Your task to perform on an android device: Clear the cart on ebay. Search for logitech g pro on ebay, select the first entry, and add it to the cart. Image 0: 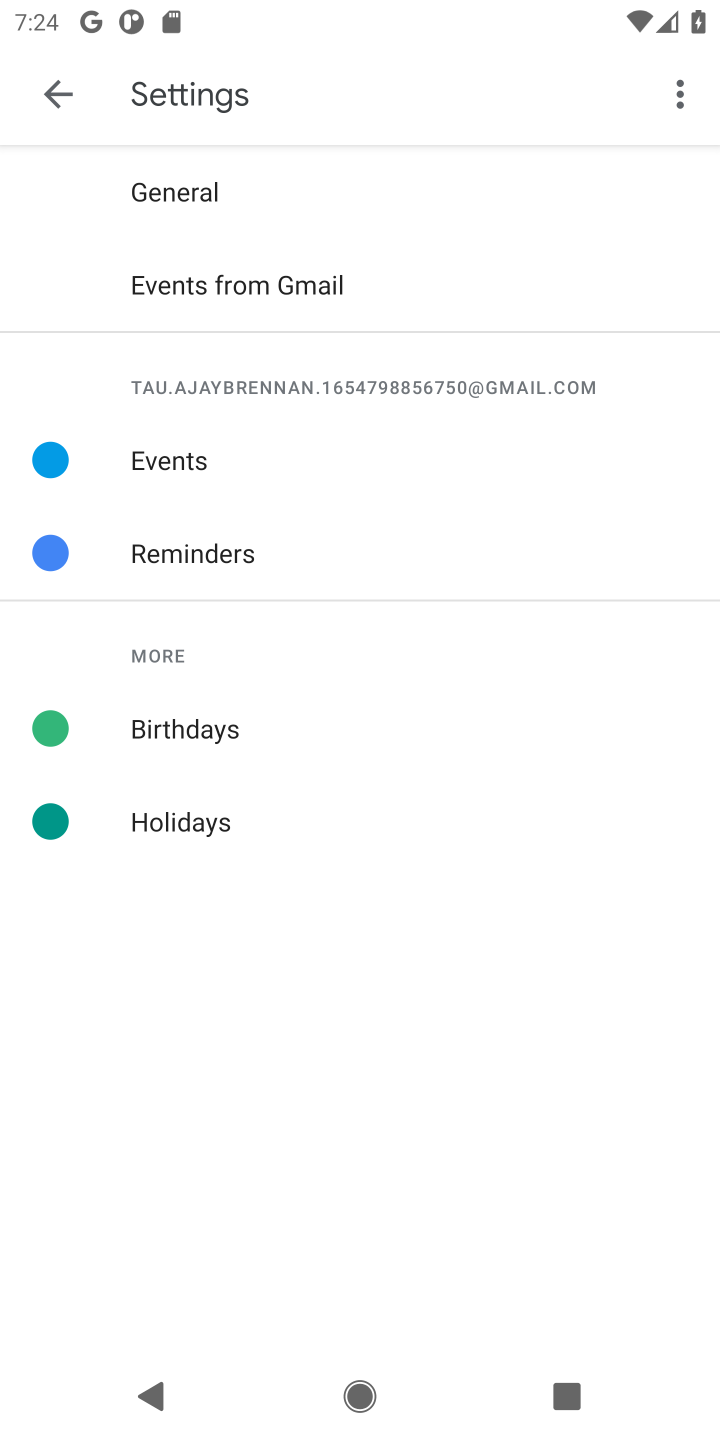
Step 0: press home button
Your task to perform on an android device: Clear the cart on ebay. Search for logitech g pro on ebay, select the first entry, and add it to the cart. Image 1: 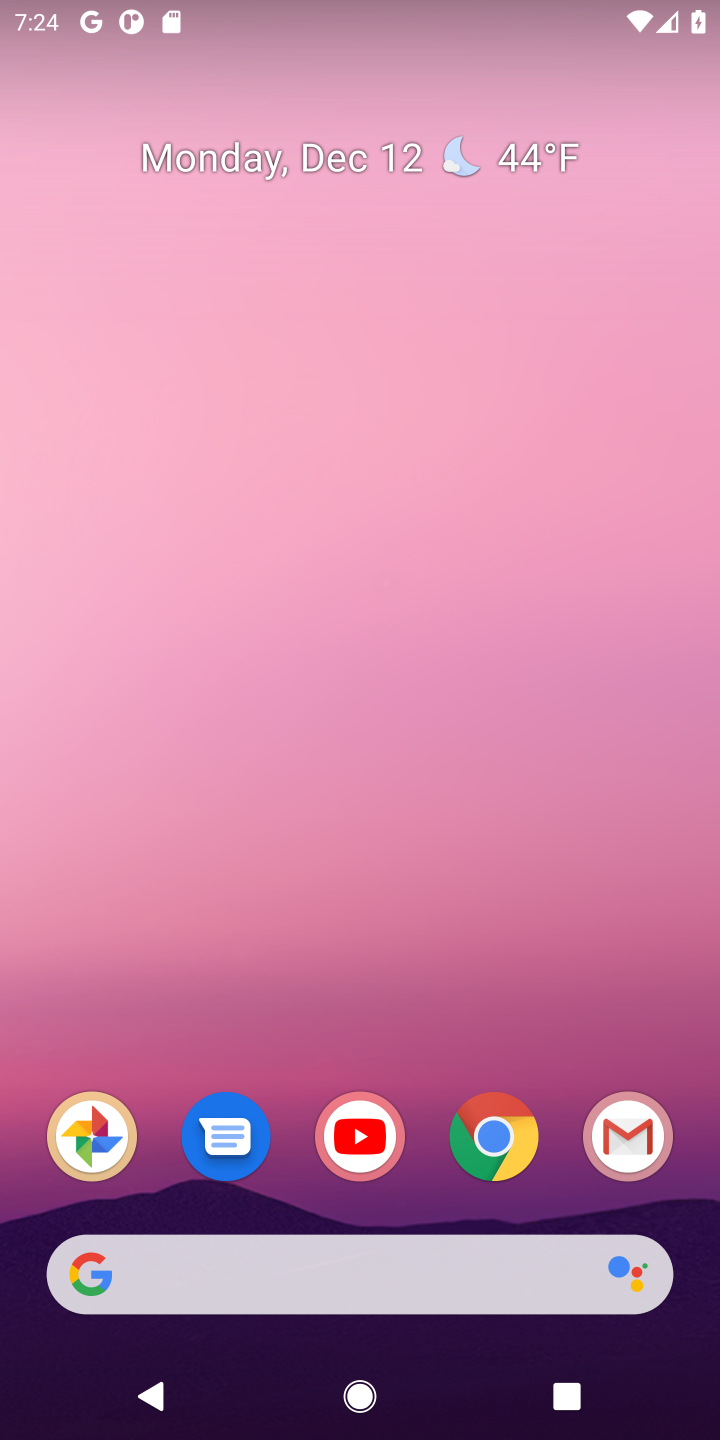
Step 1: click (496, 1144)
Your task to perform on an android device: Clear the cart on ebay. Search for logitech g pro on ebay, select the first entry, and add it to the cart. Image 2: 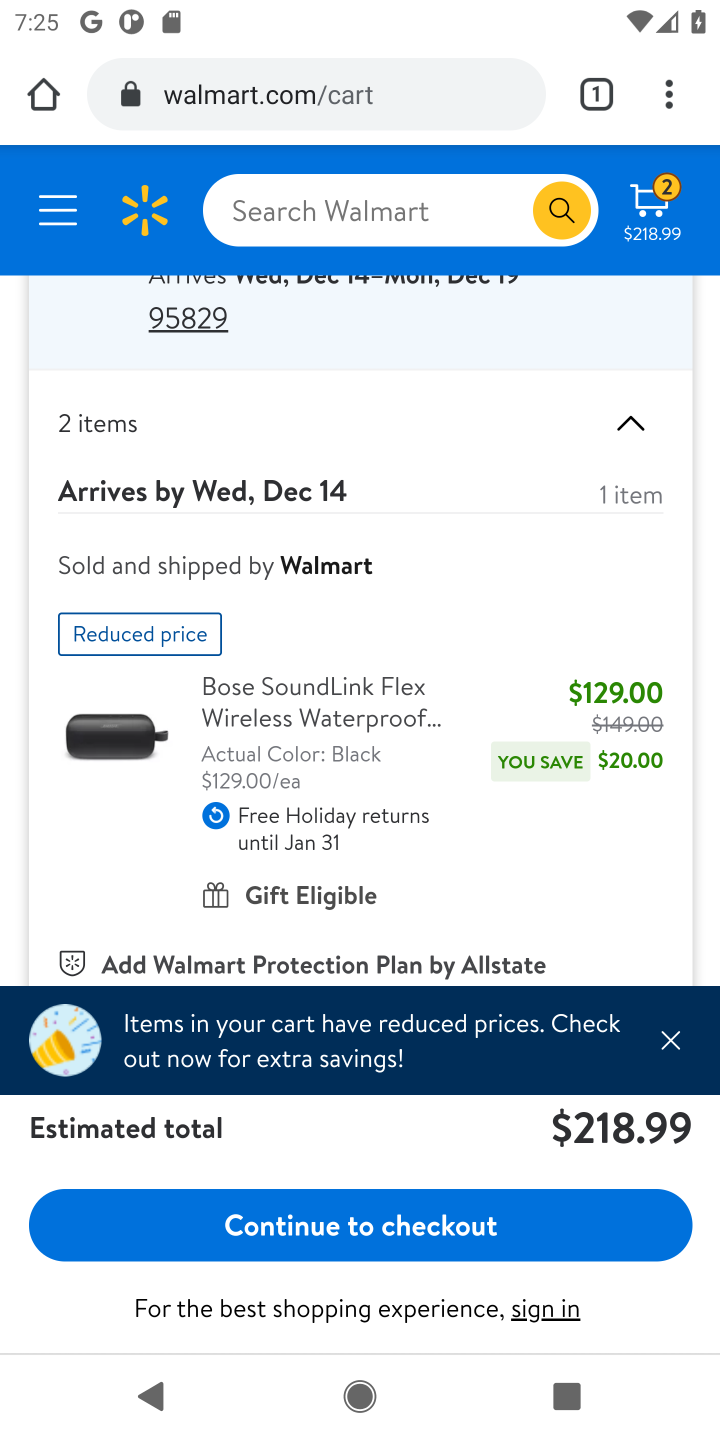
Step 2: click (240, 106)
Your task to perform on an android device: Clear the cart on ebay. Search for logitech g pro on ebay, select the first entry, and add it to the cart. Image 3: 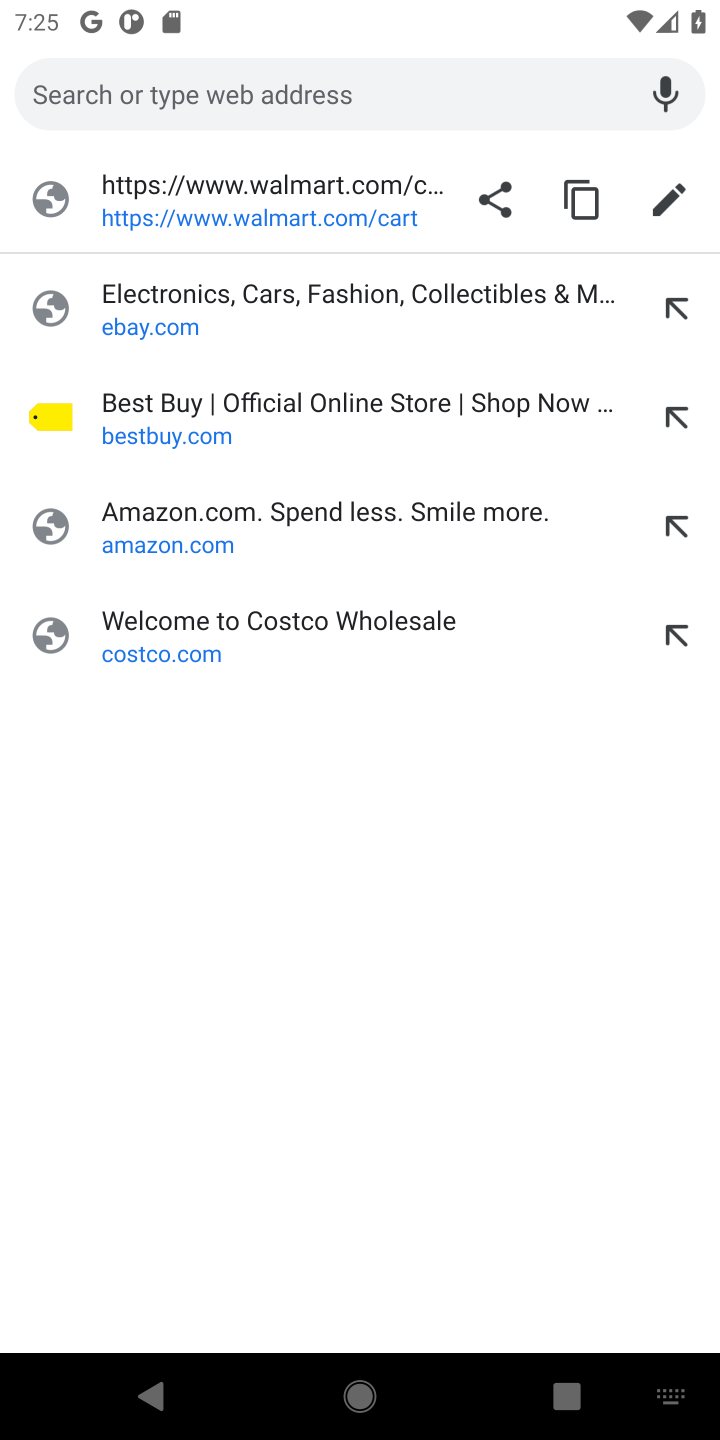
Step 3: click (146, 322)
Your task to perform on an android device: Clear the cart on ebay. Search for logitech g pro on ebay, select the first entry, and add it to the cart. Image 4: 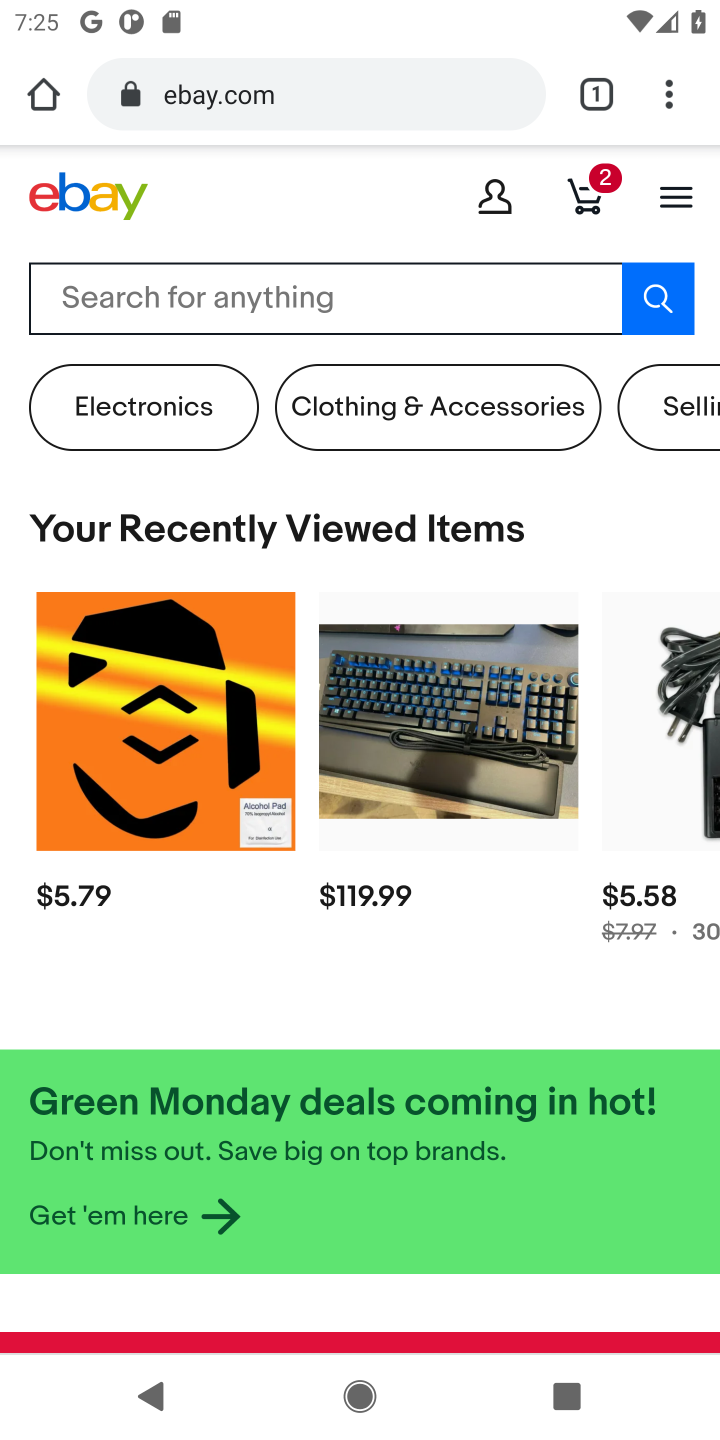
Step 4: click (590, 191)
Your task to perform on an android device: Clear the cart on ebay. Search for logitech g pro on ebay, select the first entry, and add it to the cart. Image 5: 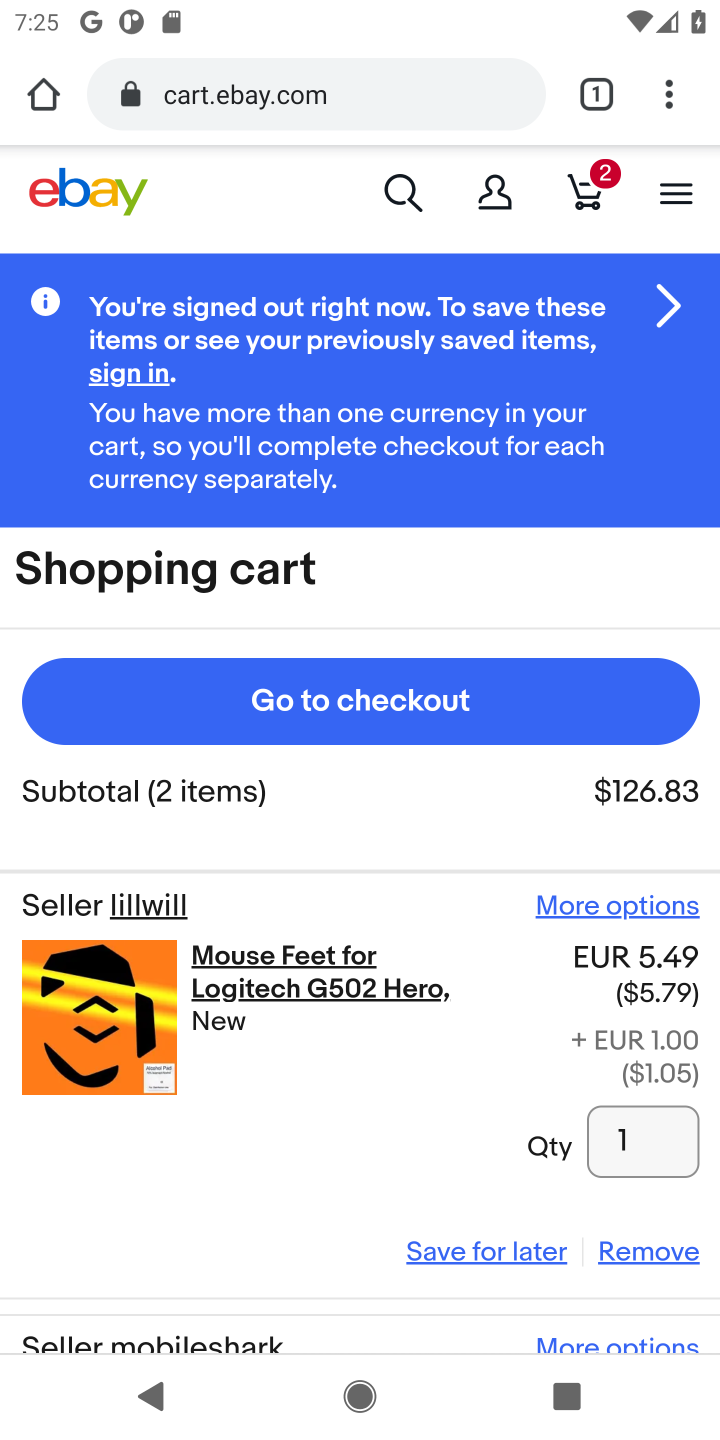
Step 5: click (644, 1250)
Your task to perform on an android device: Clear the cart on ebay. Search for logitech g pro on ebay, select the first entry, and add it to the cart. Image 6: 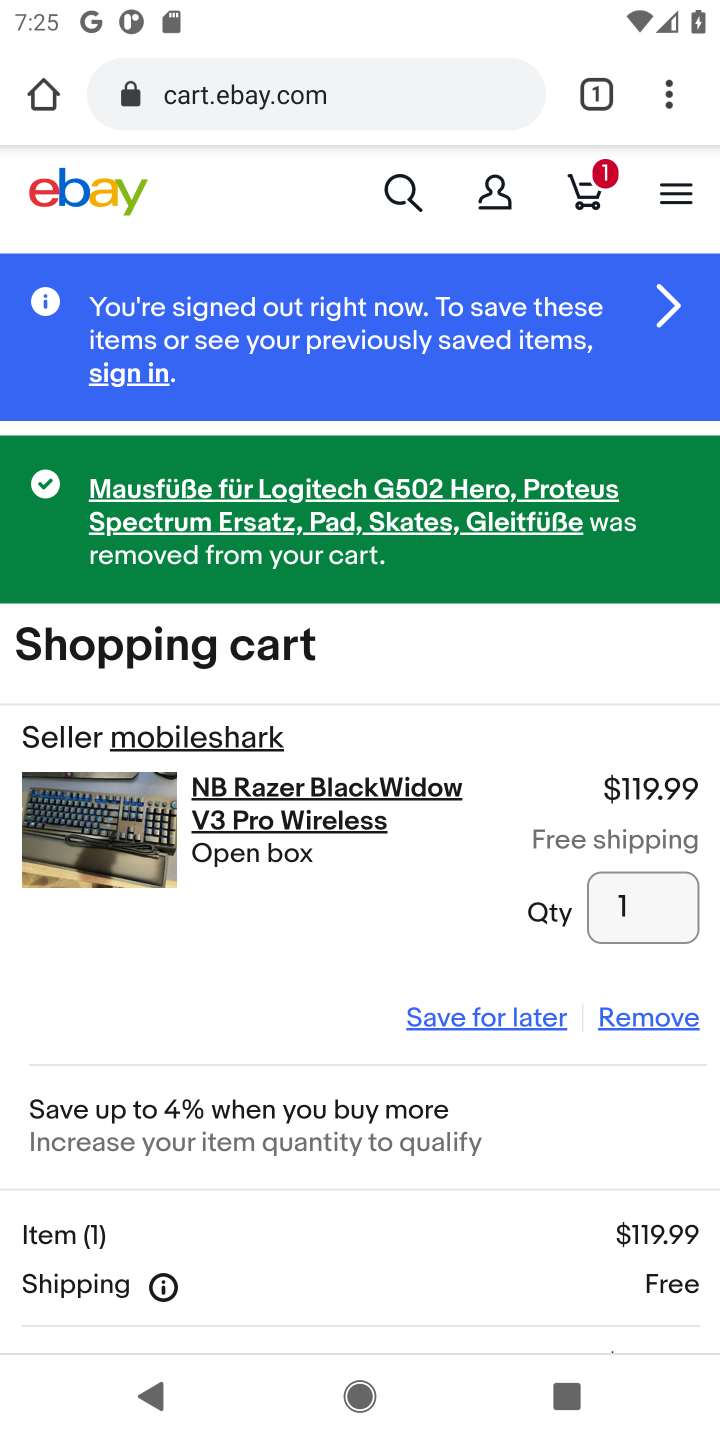
Step 6: click (653, 1019)
Your task to perform on an android device: Clear the cart on ebay. Search for logitech g pro on ebay, select the first entry, and add it to the cart. Image 7: 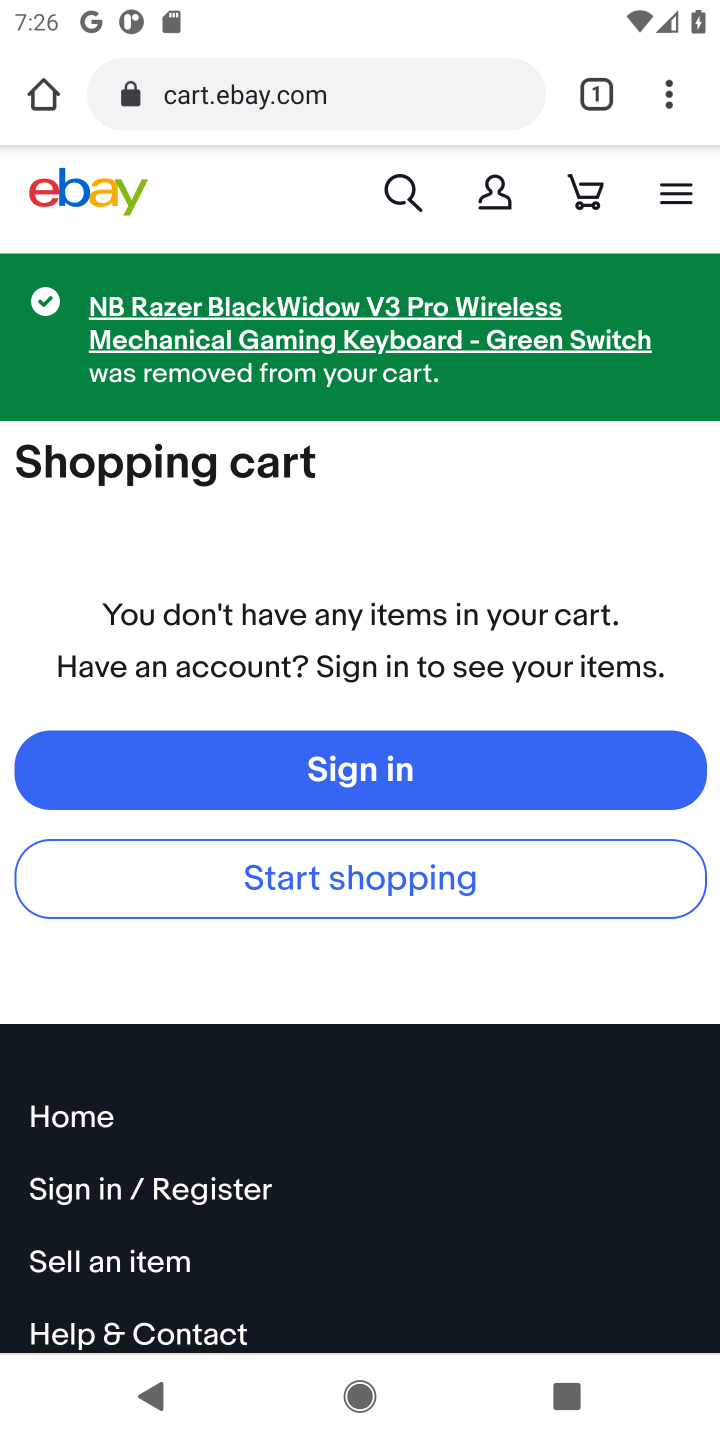
Step 7: click (409, 202)
Your task to perform on an android device: Clear the cart on ebay. Search for logitech g pro on ebay, select the first entry, and add it to the cart. Image 8: 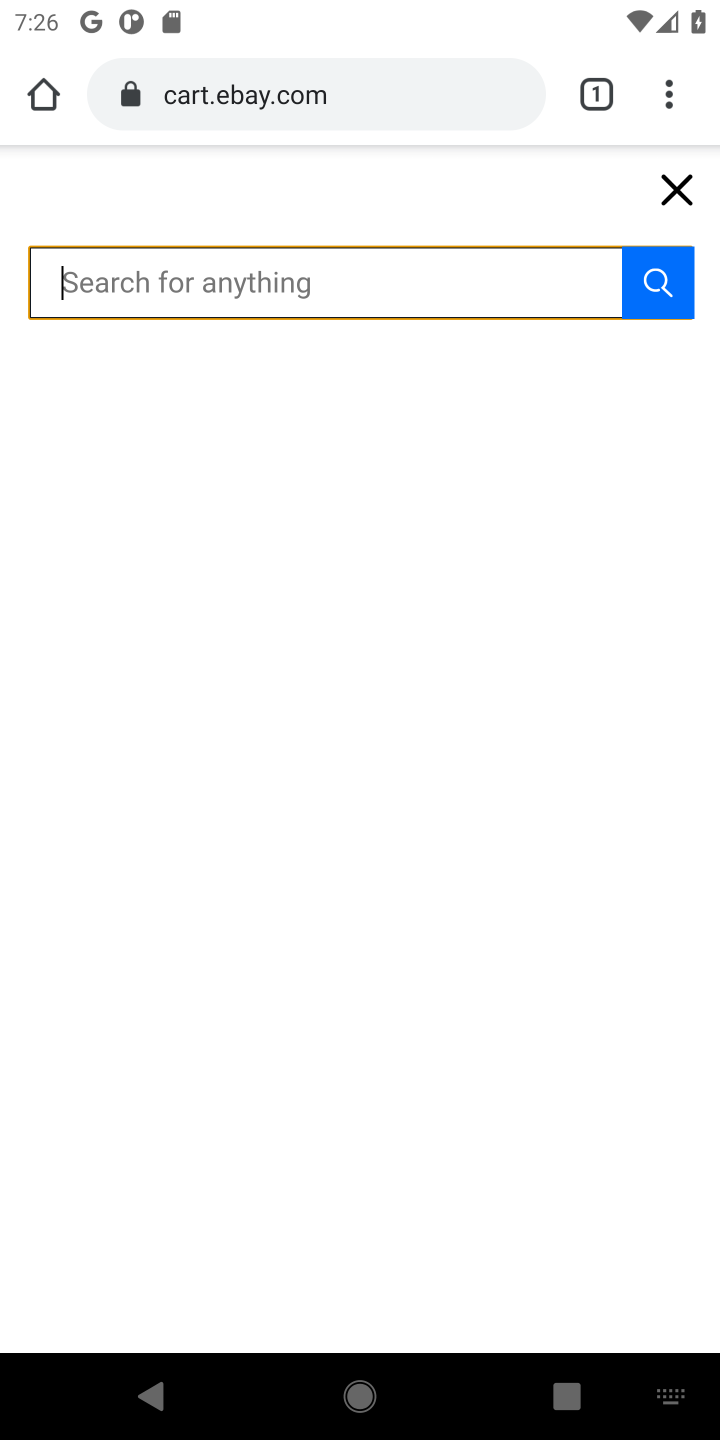
Step 8: type " logitech g pro "
Your task to perform on an android device: Clear the cart on ebay. Search for logitech g pro on ebay, select the first entry, and add it to the cart. Image 9: 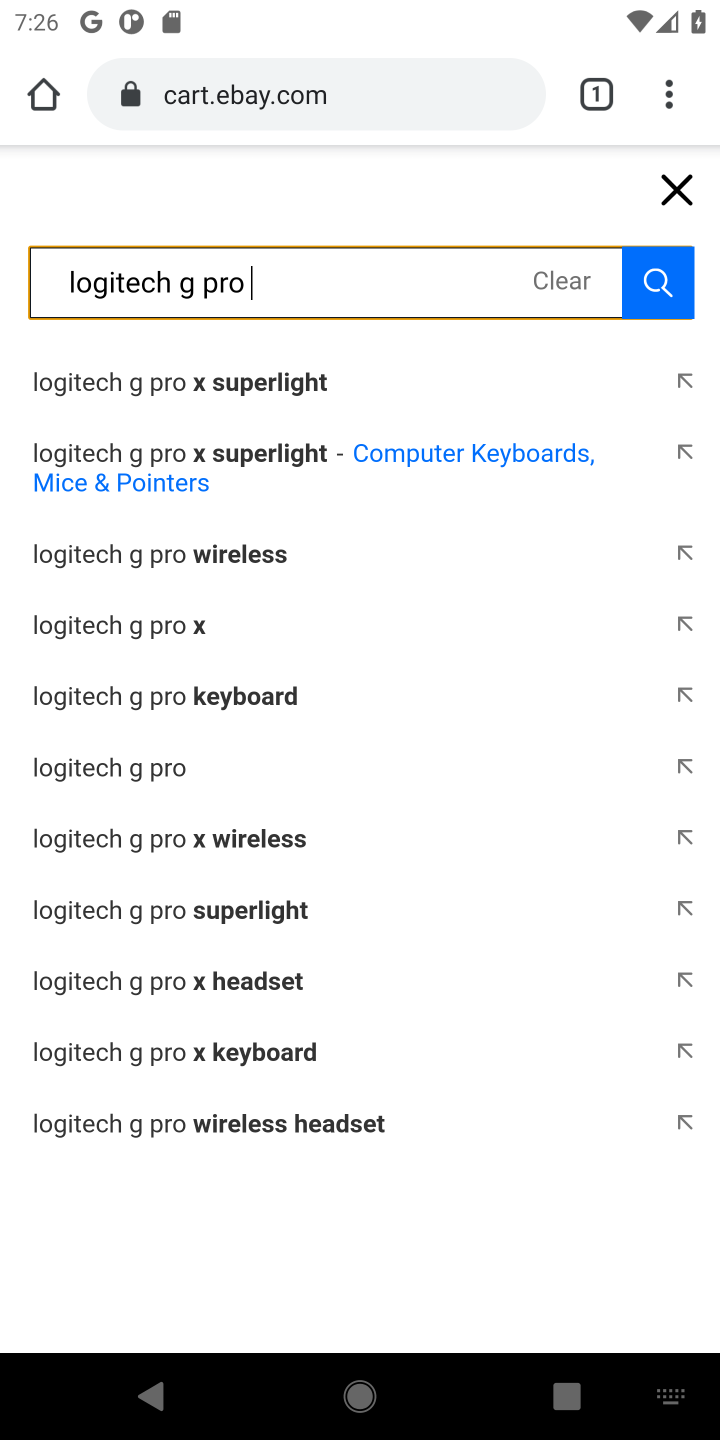
Step 9: click (140, 776)
Your task to perform on an android device: Clear the cart on ebay. Search for logitech g pro on ebay, select the first entry, and add it to the cart. Image 10: 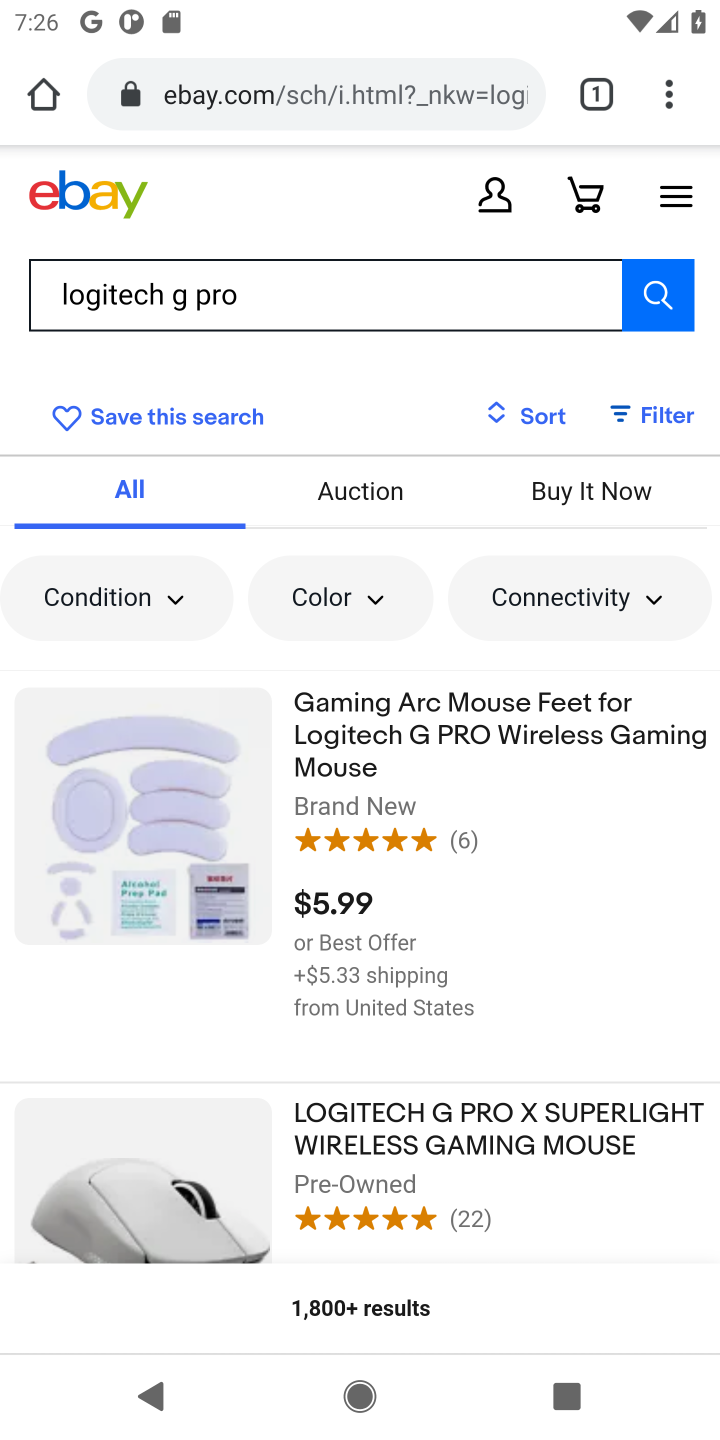
Step 10: click (366, 739)
Your task to perform on an android device: Clear the cart on ebay. Search for logitech g pro on ebay, select the first entry, and add it to the cart. Image 11: 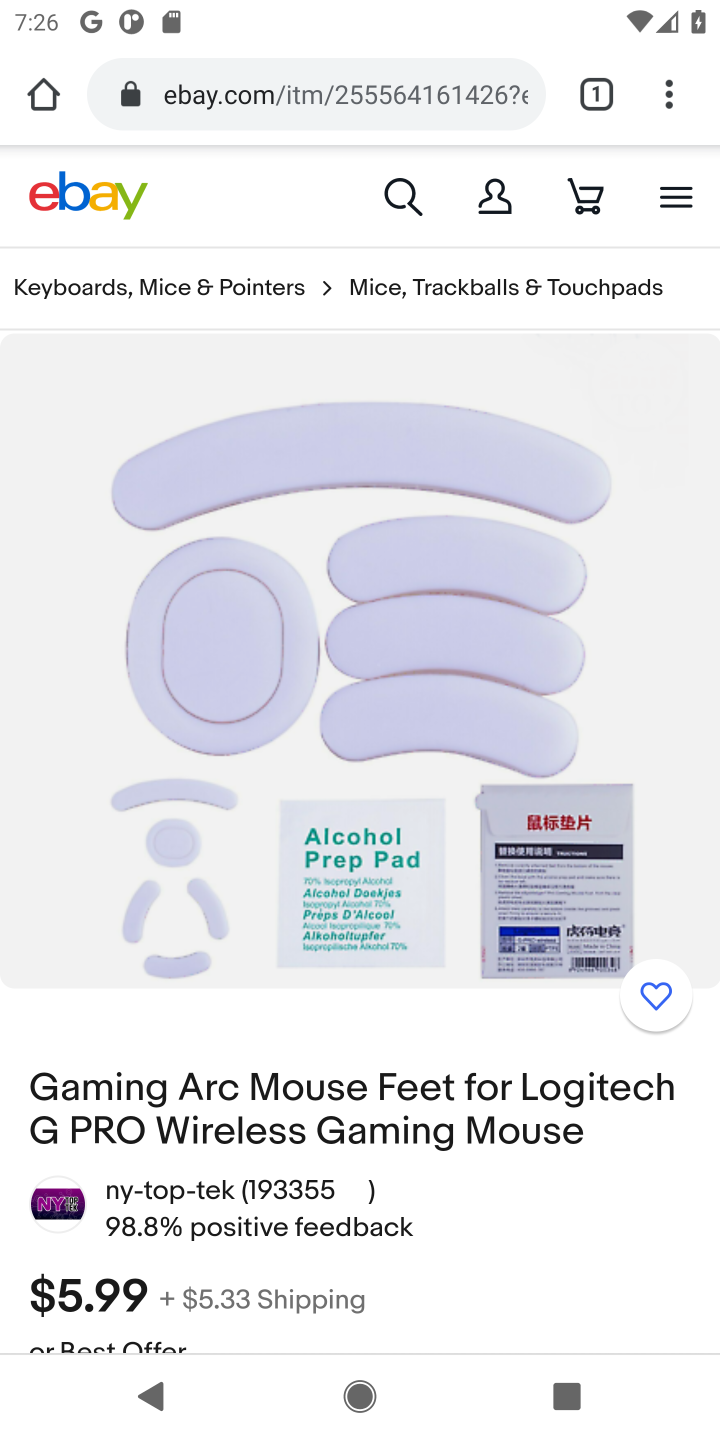
Step 11: drag from (290, 1016) to (307, 268)
Your task to perform on an android device: Clear the cart on ebay. Search for logitech g pro on ebay, select the first entry, and add it to the cart. Image 12: 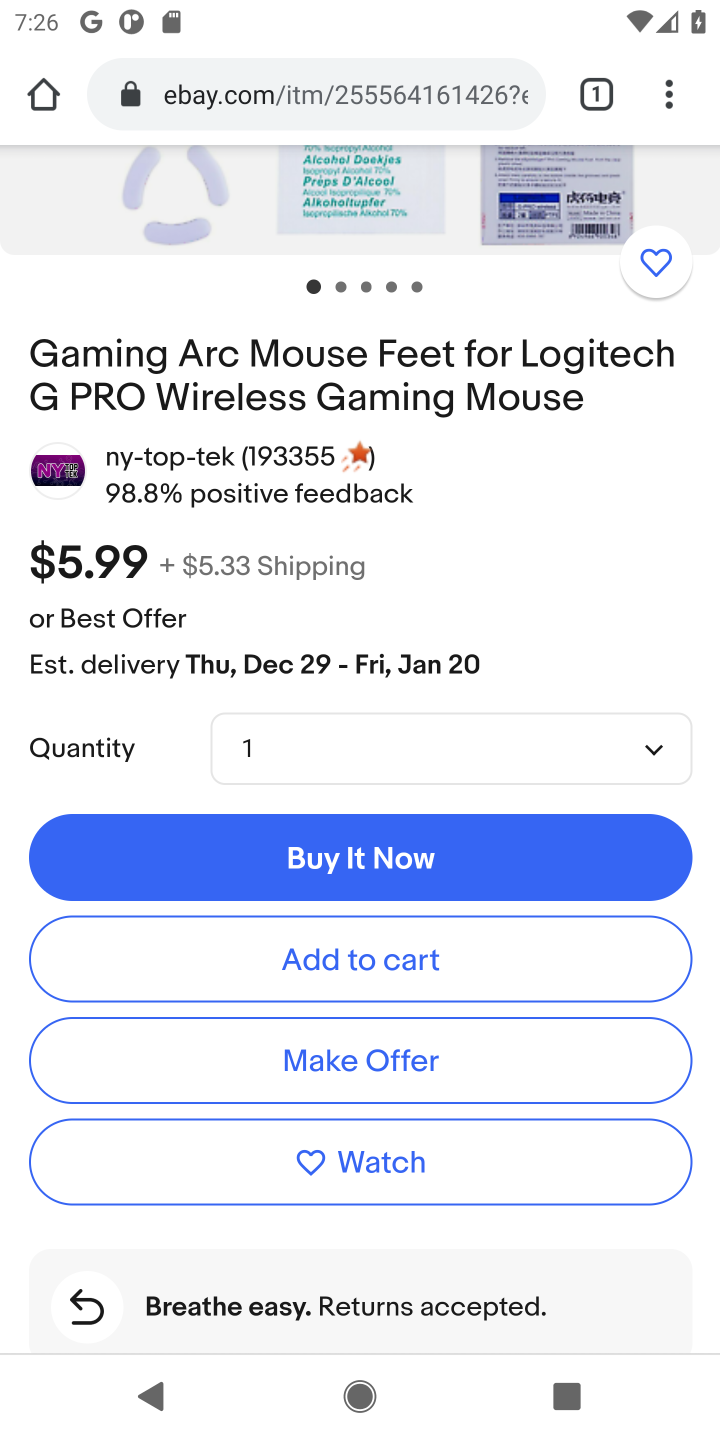
Step 12: click (308, 966)
Your task to perform on an android device: Clear the cart on ebay. Search for logitech g pro on ebay, select the first entry, and add it to the cart. Image 13: 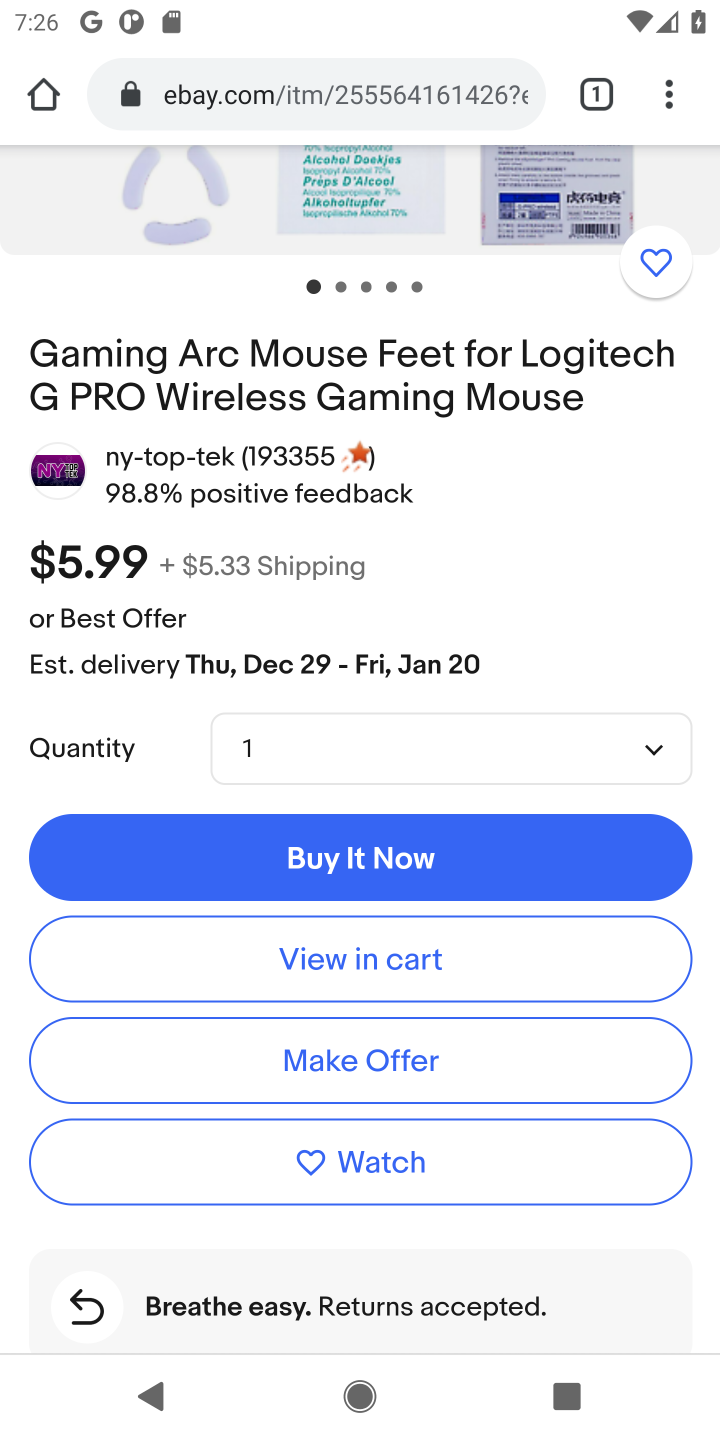
Step 13: task complete